Your task to perform on an android device: read, delete, or share a saved page in the chrome app Image 0: 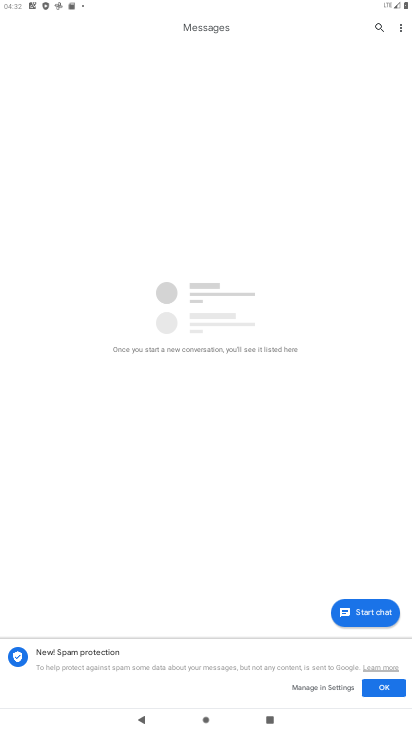
Step 0: press home button
Your task to perform on an android device: read, delete, or share a saved page in the chrome app Image 1: 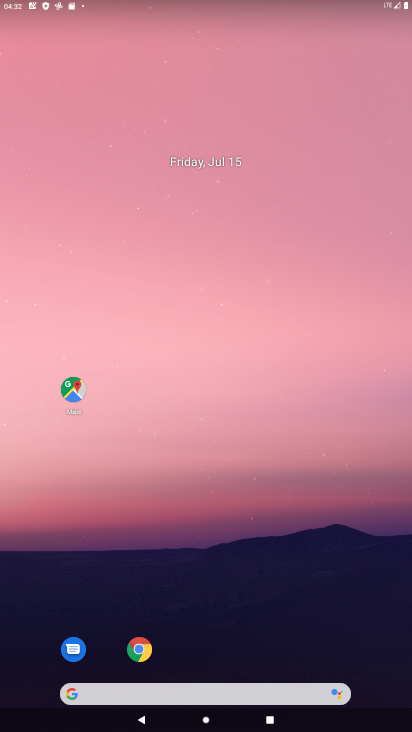
Step 1: drag from (317, 630) to (212, 76)
Your task to perform on an android device: read, delete, or share a saved page in the chrome app Image 2: 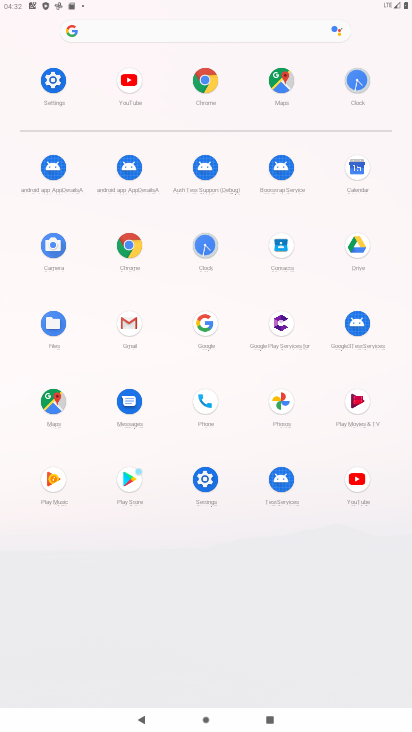
Step 2: click (203, 73)
Your task to perform on an android device: read, delete, or share a saved page in the chrome app Image 3: 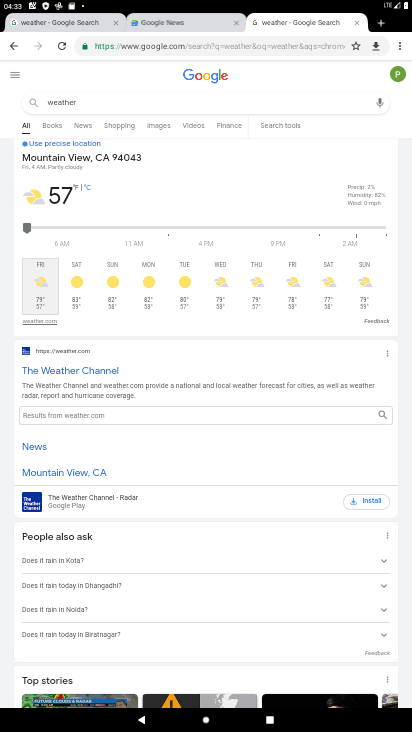
Step 3: task complete